Your task to perform on an android device: Go to Google Image 0: 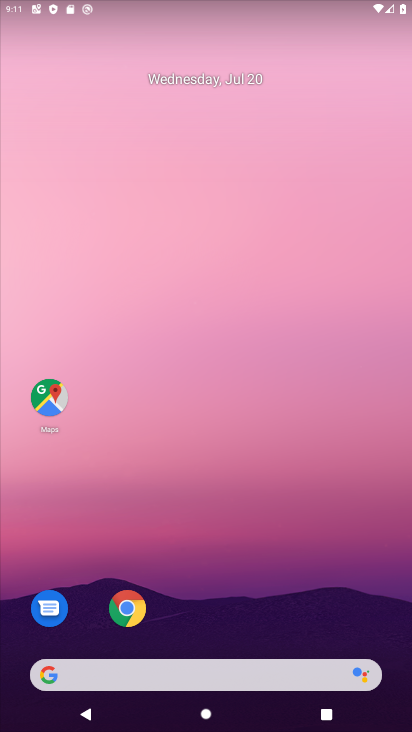
Step 0: drag from (251, 652) to (187, 102)
Your task to perform on an android device: Go to Google Image 1: 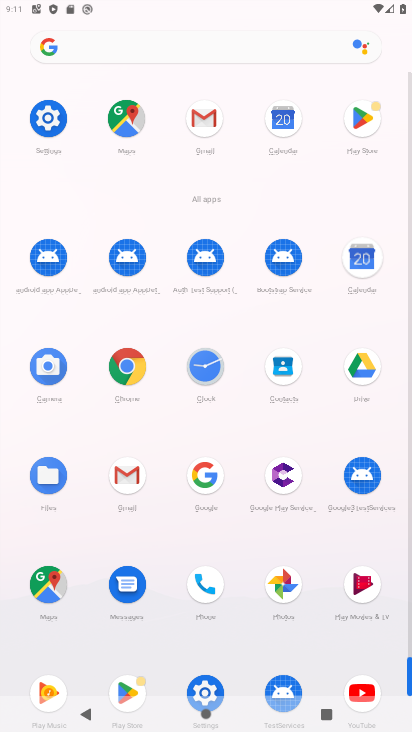
Step 1: click (196, 473)
Your task to perform on an android device: Go to Google Image 2: 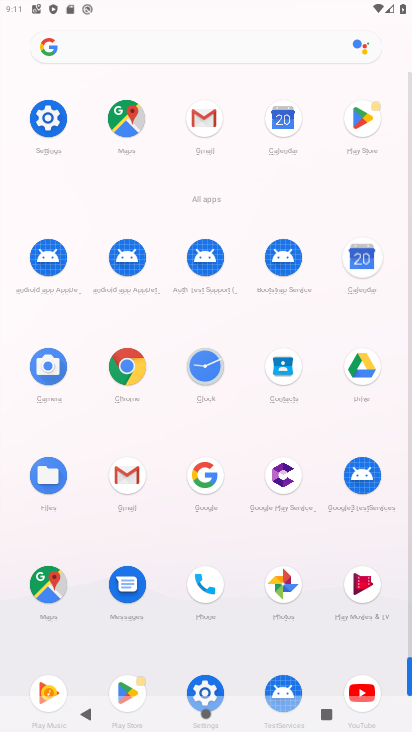
Step 2: click (196, 473)
Your task to perform on an android device: Go to Google Image 3: 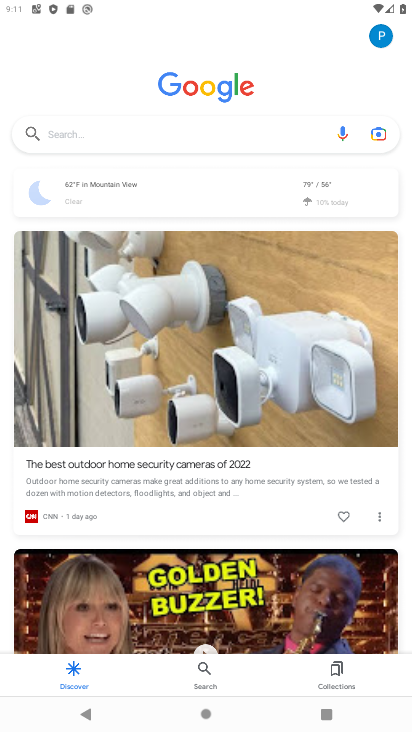
Step 3: task complete